Your task to perform on an android device: delete a single message in the gmail app Image 0: 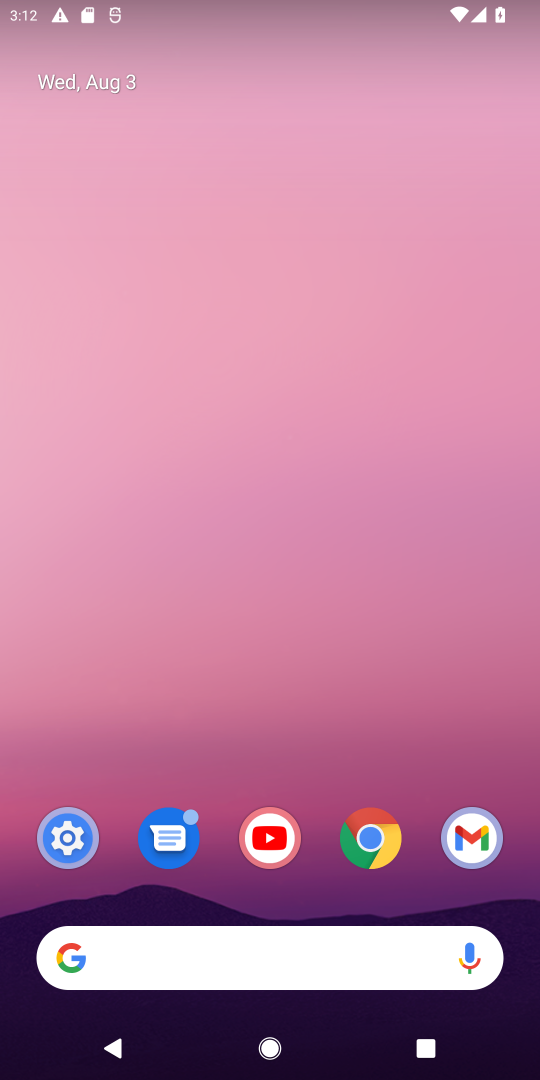
Step 0: click (482, 840)
Your task to perform on an android device: delete a single message in the gmail app Image 1: 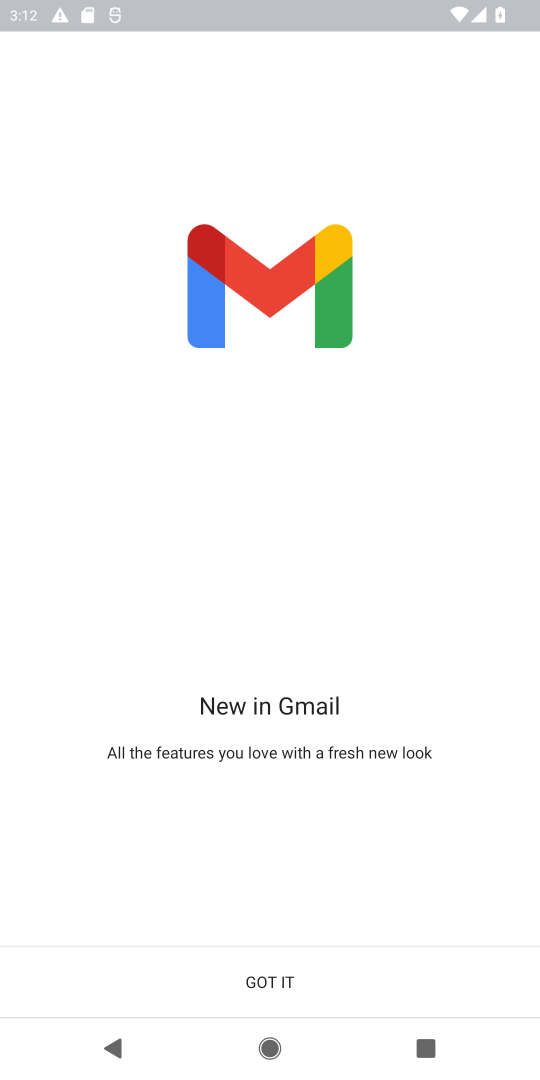
Step 1: press back button
Your task to perform on an android device: delete a single message in the gmail app Image 2: 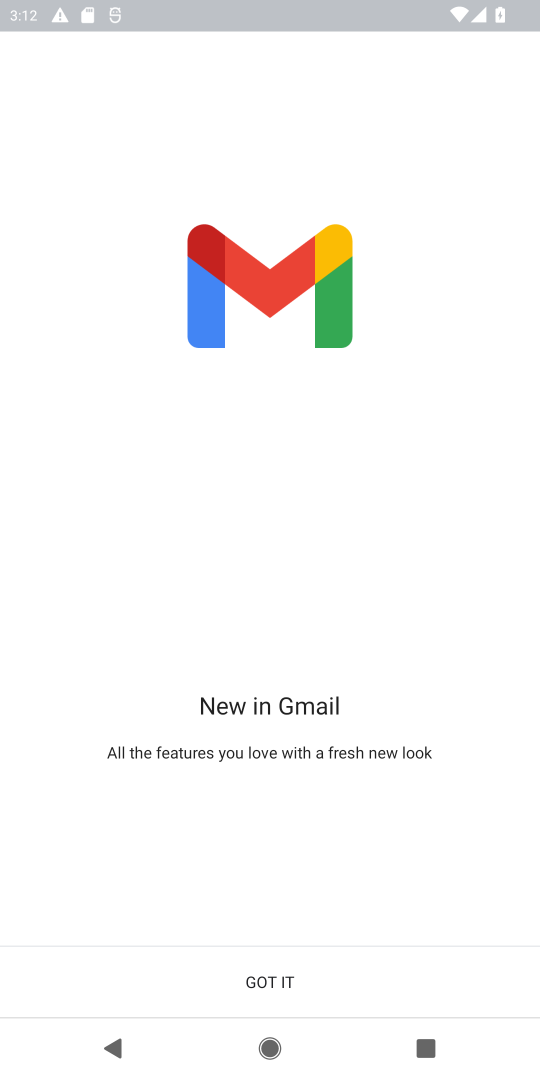
Step 2: press back button
Your task to perform on an android device: delete a single message in the gmail app Image 3: 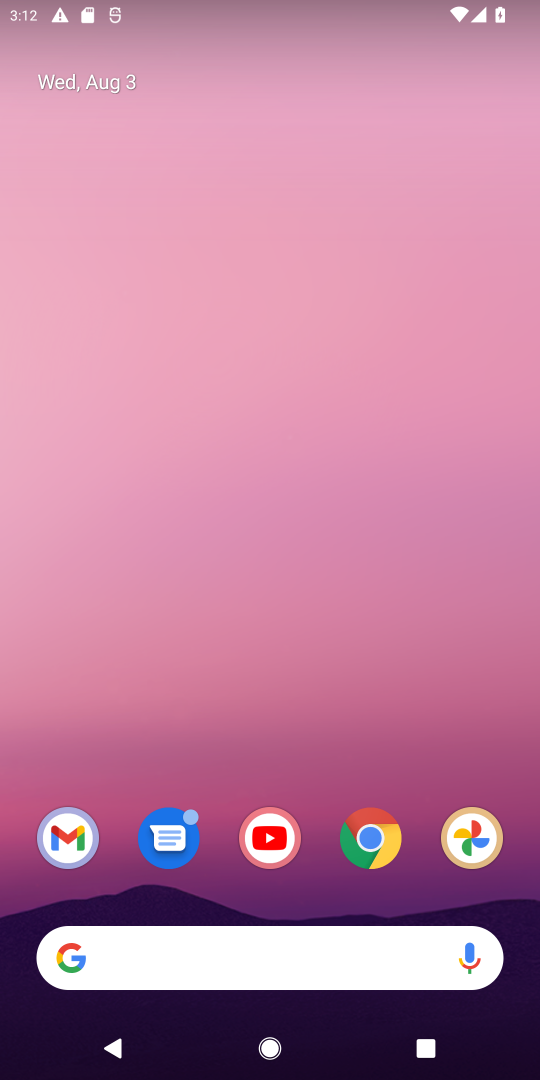
Step 3: drag from (296, 876) to (324, 81)
Your task to perform on an android device: delete a single message in the gmail app Image 4: 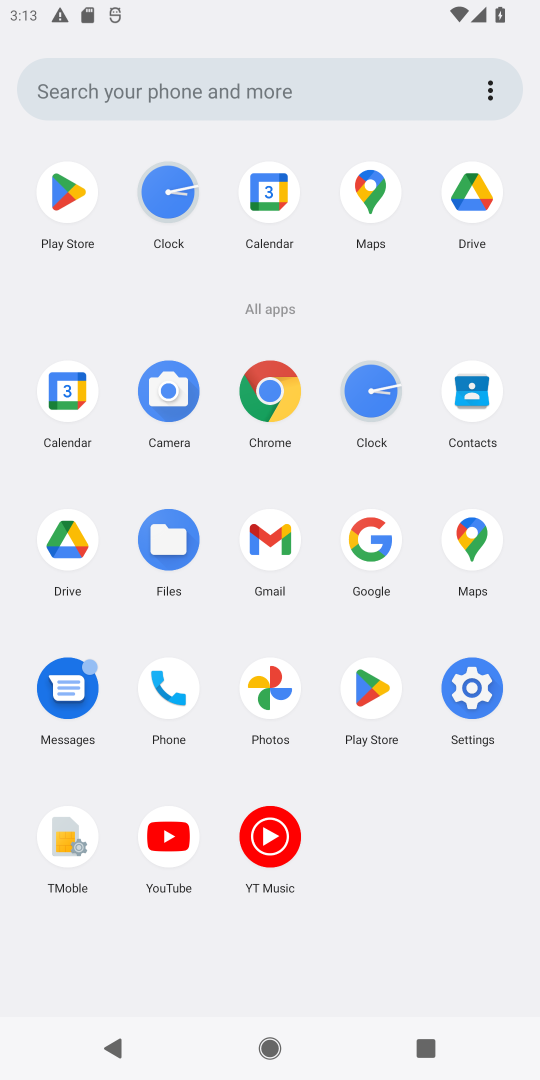
Step 4: click (261, 542)
Your task to perform on an android device: delete a single message in the gmail app Image 5: 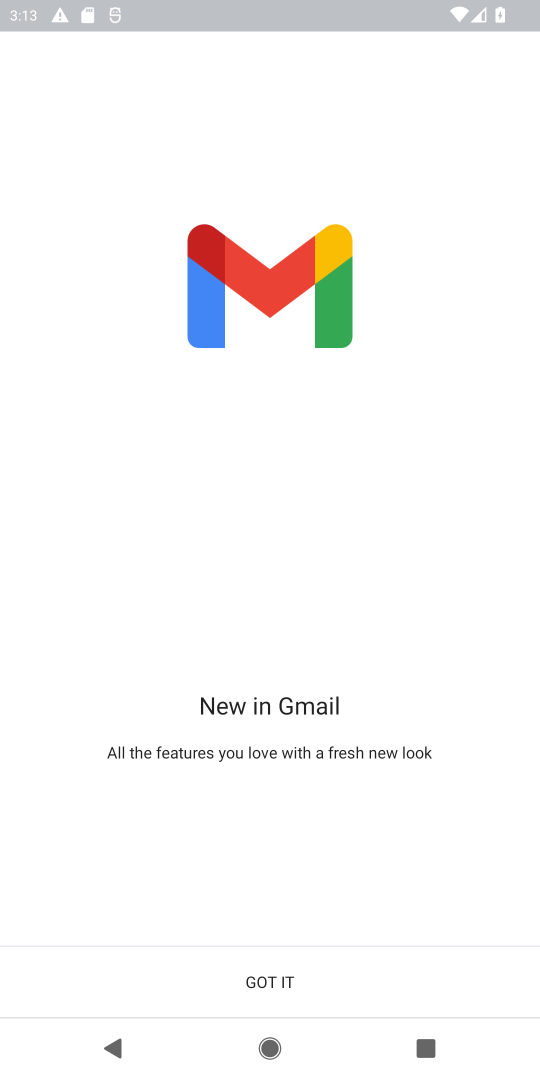
Step 5: click (273, 990)
Your task to perform on an android device: delete a single message in the gmail app Image 6: 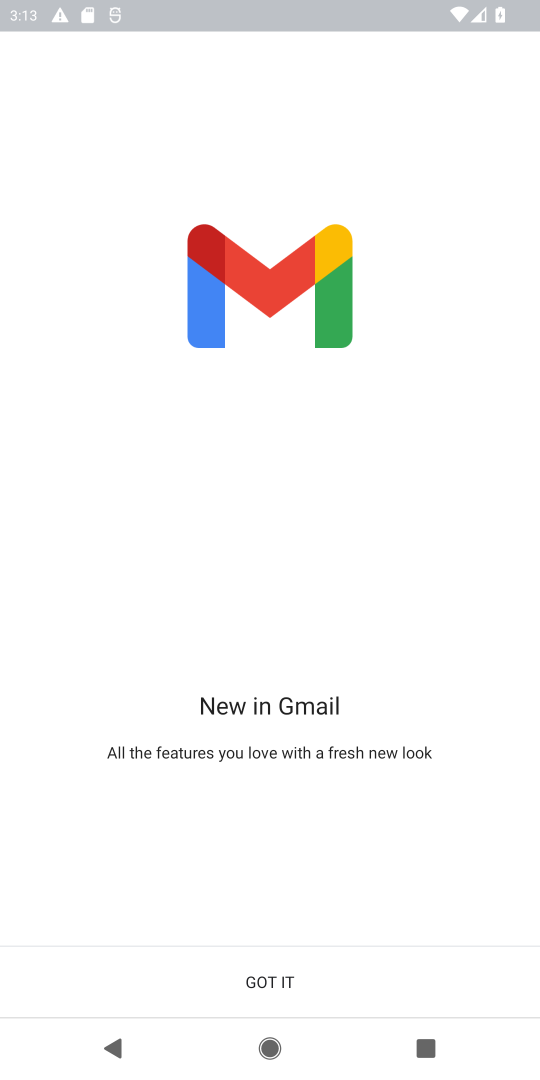
Step 6: click (273, 990)
Your task to perform on an android device: delete a single message in the gmail app Image 7: 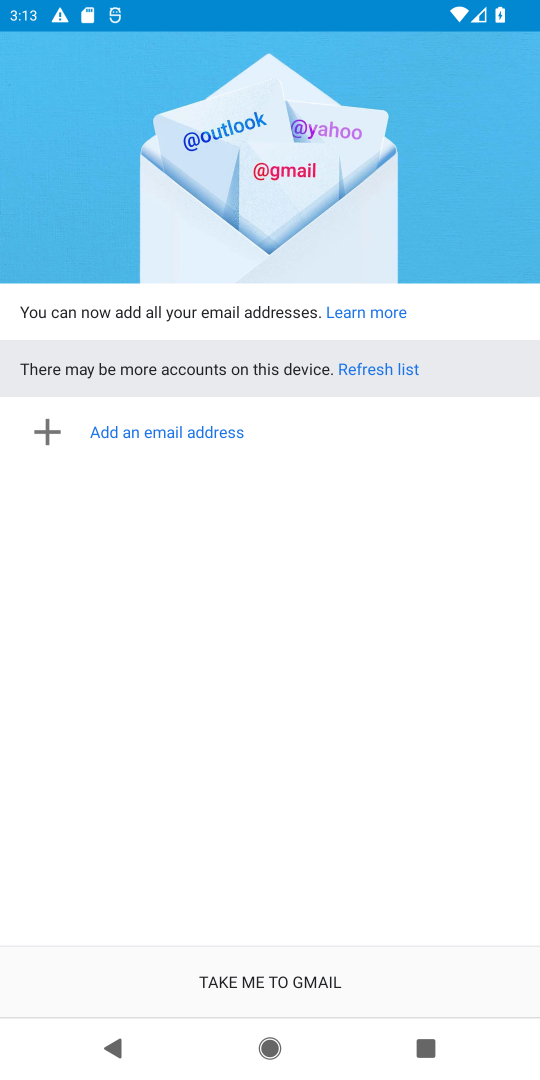
Step 7: click (273, 990)
Your task to perform on an android device: delete a single message in the gmail app Image 8: 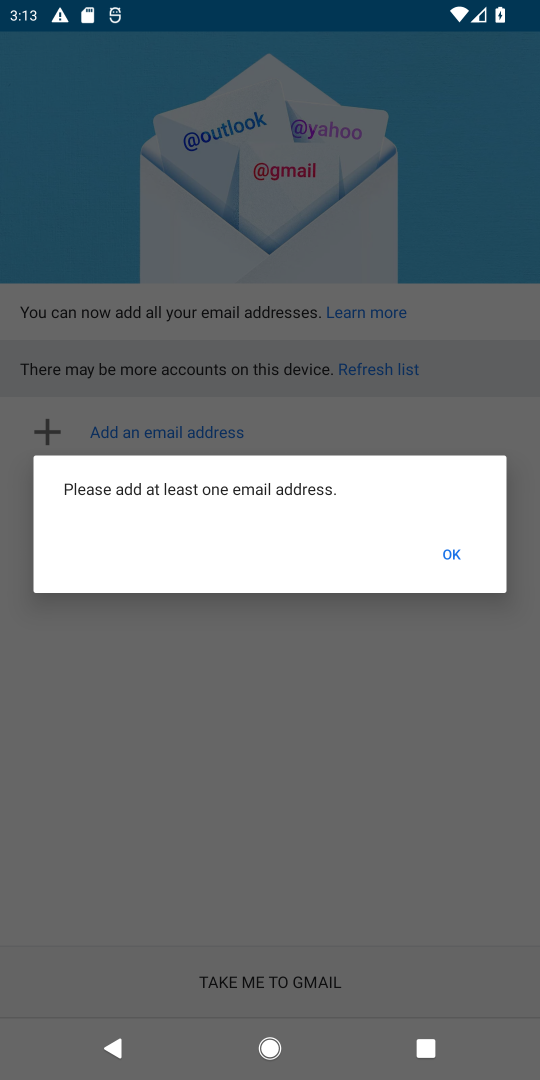
Step 8: click (453, 544)
Your task to perform on an android device: delete a single message in the gmail app Image 9: 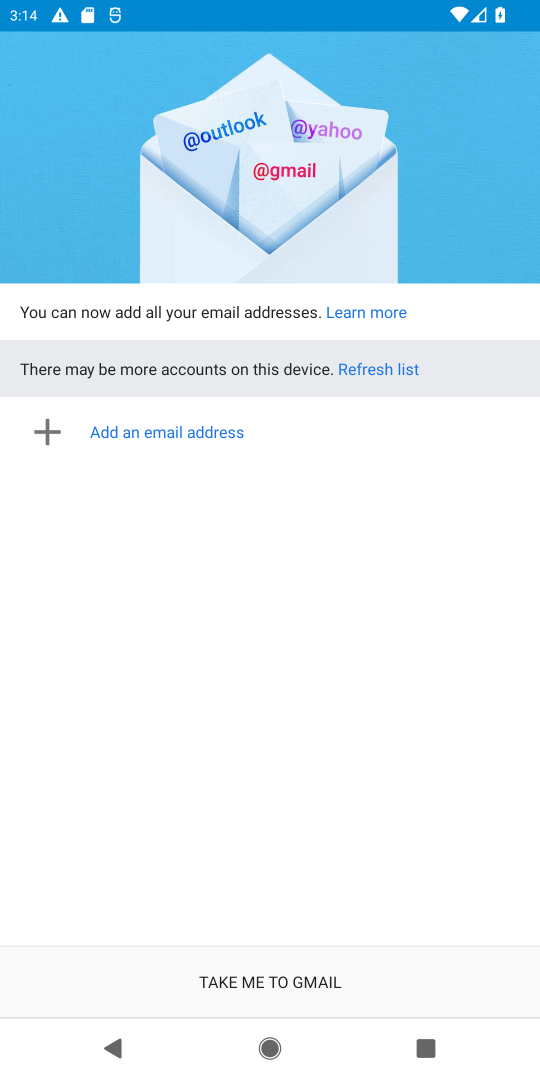
Step 9: task complete